Your task to perform on an android device: check data usage Image 0: 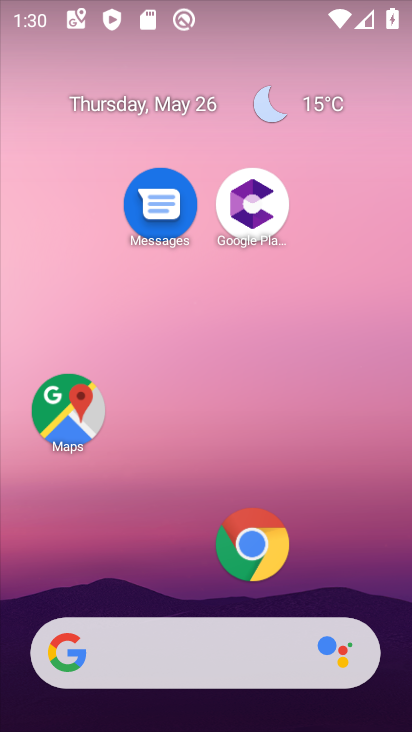
Step 0: drag from (240, 10) to (248, 650)
Your task to perform on an android device: check data usage Image 1: 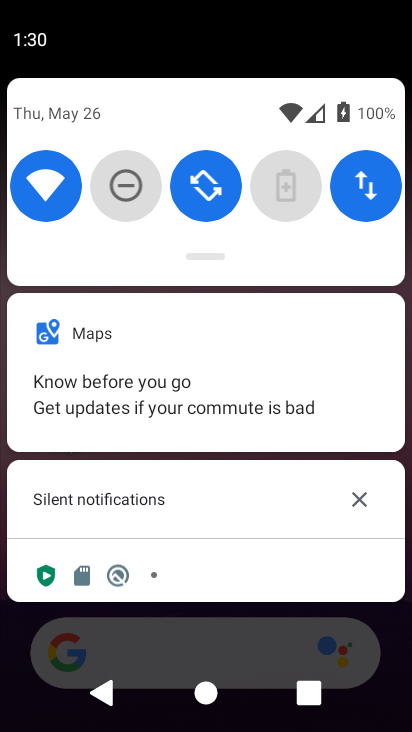
Step 1: click (346, 195)
Your task to perform on an android device: check data usage Image 2: 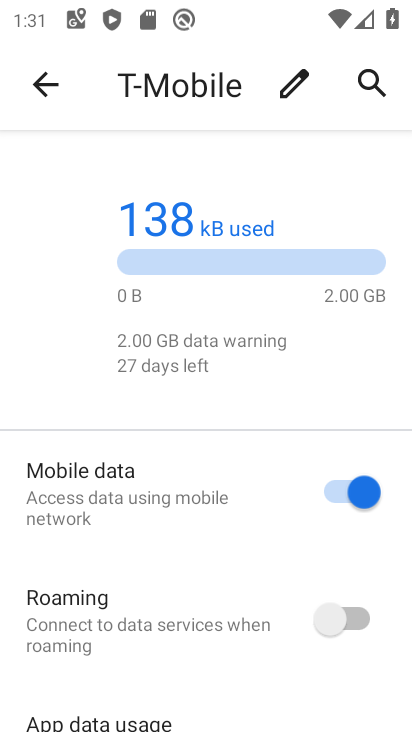
Step 2: task complete